Your task to perform on an android device: check android version Image 0: 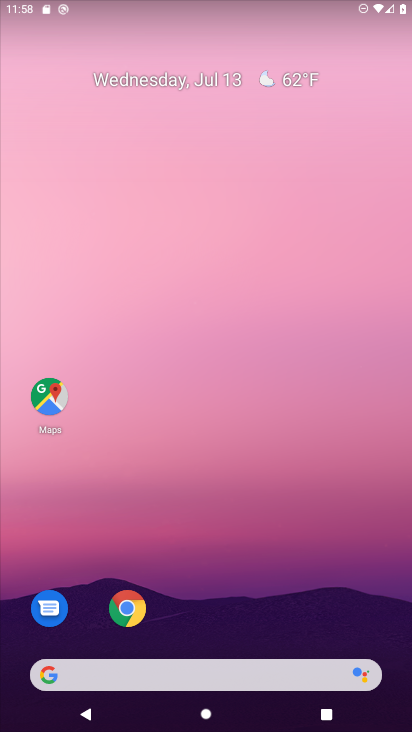
Step 0: drag from (237, 702) to (231, 166)
Your task to perform on an android device: check android version Image 1: 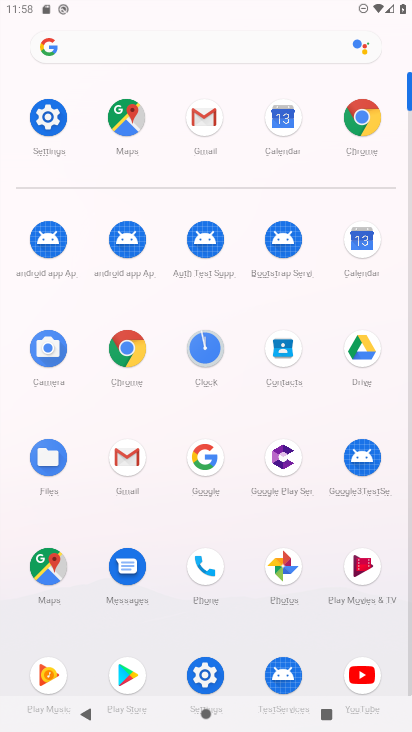
Step 1: click (50, 114)
Your task to perform on an android device: check android version Image 2: 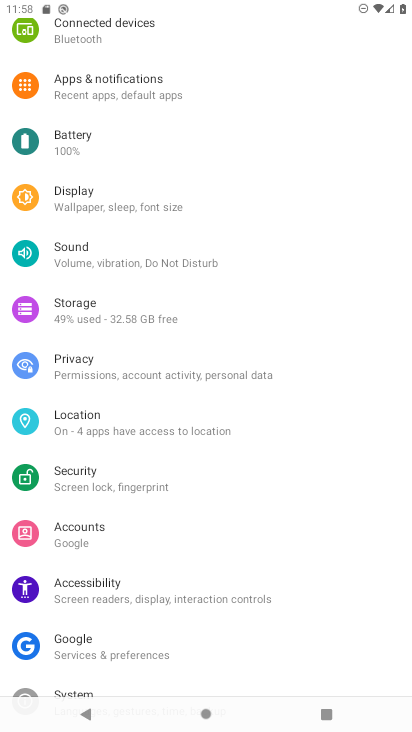
Step 2: drag from (166, 671) to (148, 516)
Your task to perform on an android device: check android version Image 3: 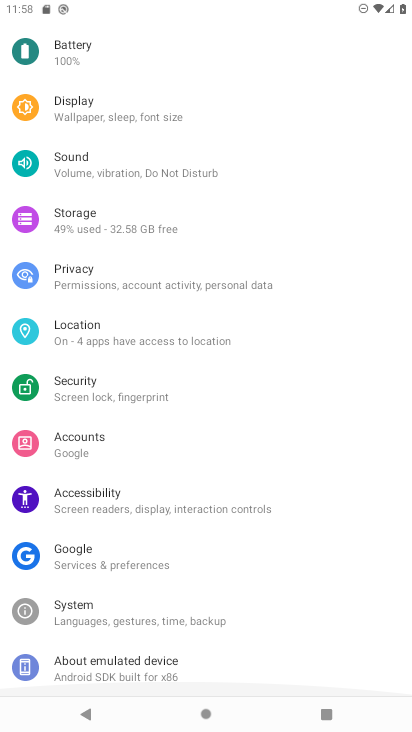
Step 3: drag from (140, 307) to (140, 261)
Your task to perform on an android device: check android version Image 4: 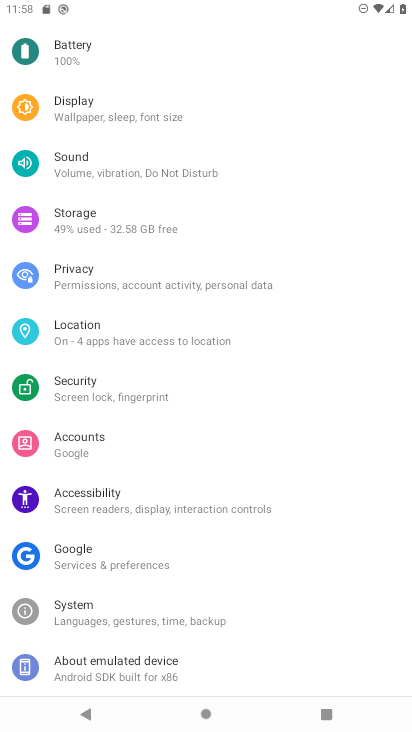
Step 4: drag from (190, 678) to (190, 603)
Your task to perform on an android device: check android version Image 5: 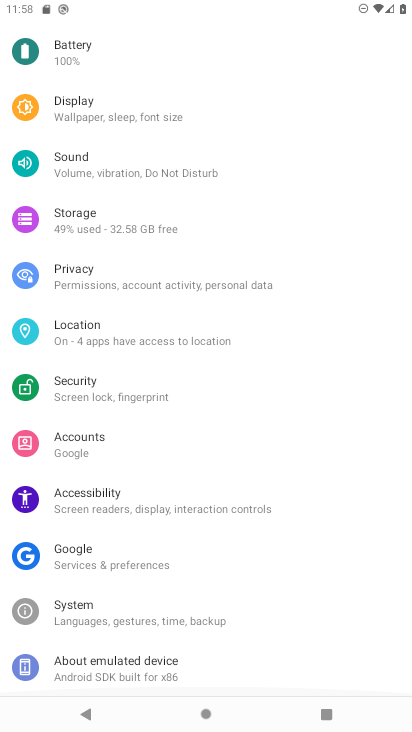
Step 5: click (184, 257)
Your task to perform on an android device: check android version Image 6: 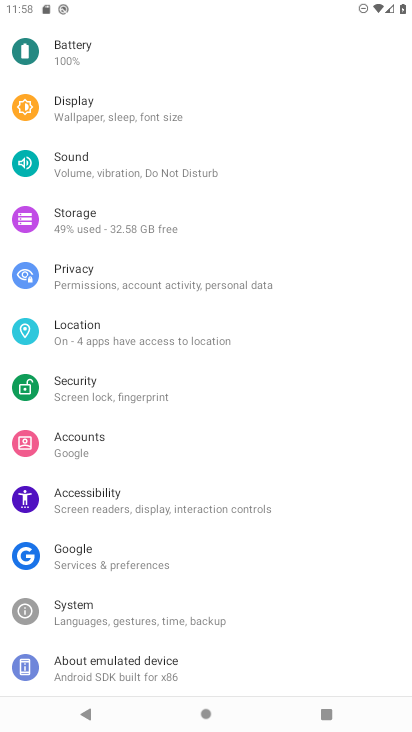
Step 6: click (130, 662)
Your task to perform on an android device: check android version Image 7: 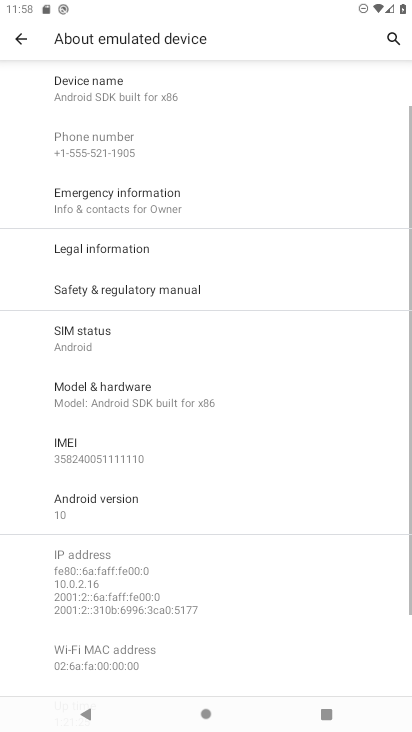
Step 7: click (80, 501)
Your task to perform on an android device: check android version Image 8: 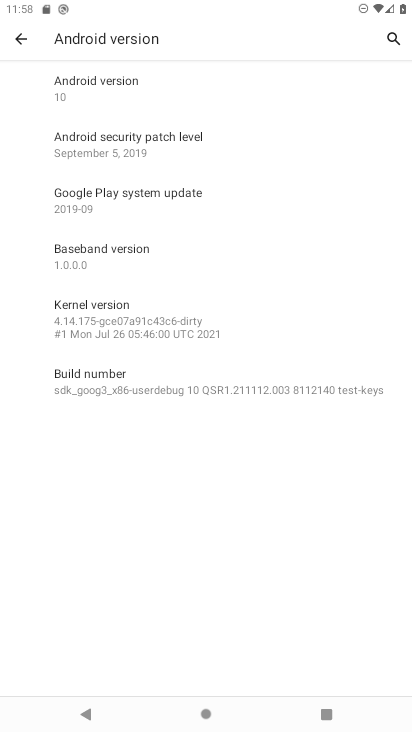
Step 8: task complete